Your task to perform on an android device: Open notification settings Image 0: 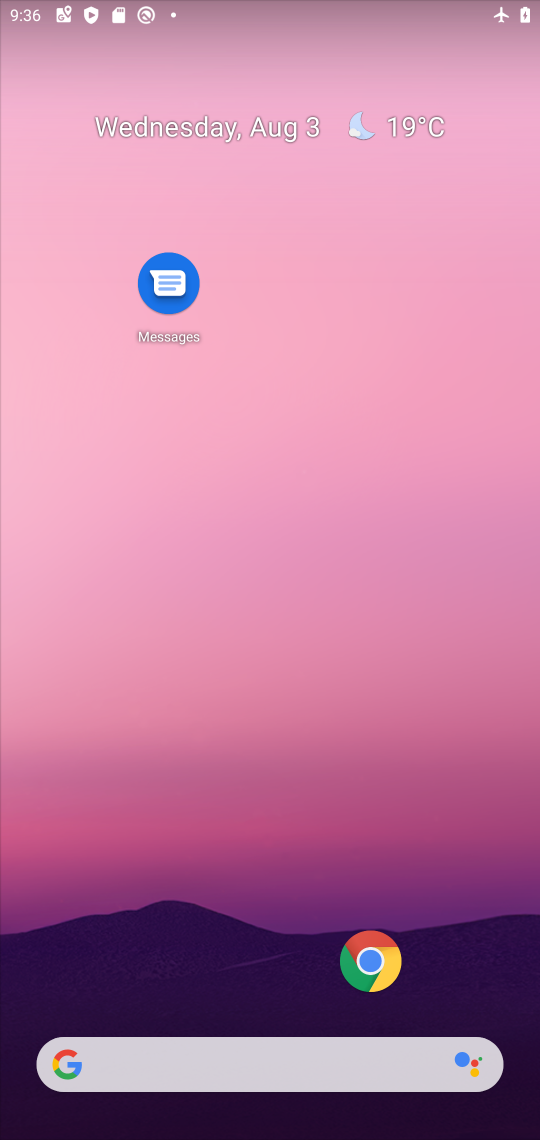
Step 0: drag from (245, 1024) to (105, 44)
Your task to perform on an android device: Open notification settings Image 1: 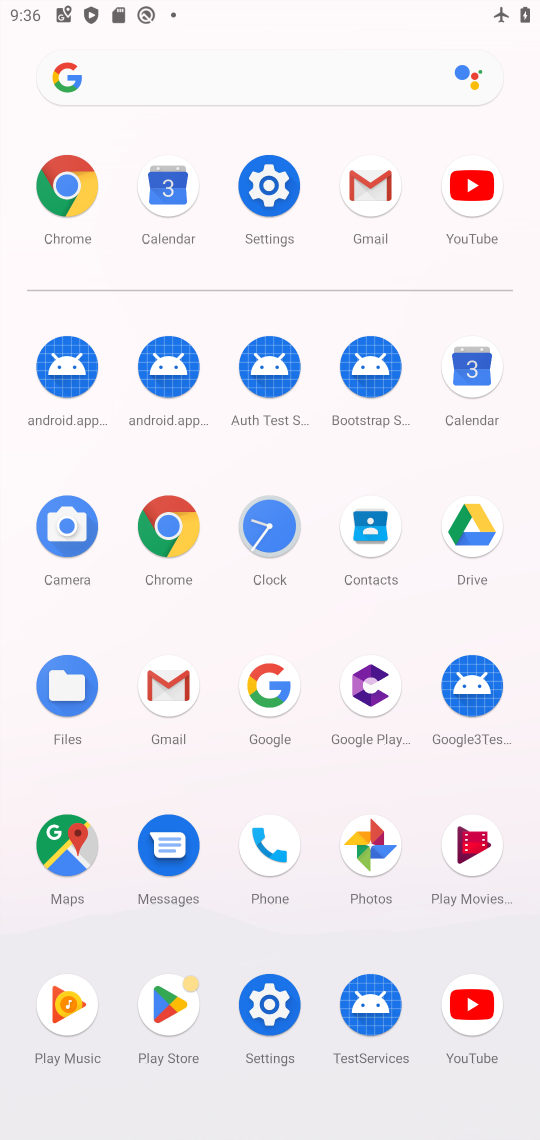
Step 1: click (259, 1001)
Your task to perform on an android device: Open notification settings Image 2: 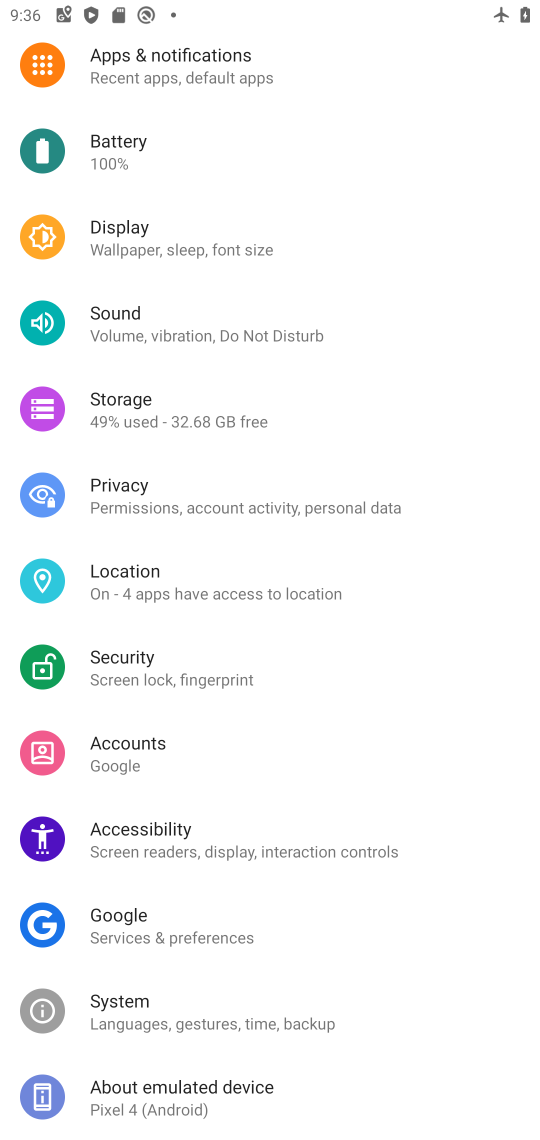
Step 2: click (169, 69)
Your task to perform on an android device: Open notification settings Image 3: 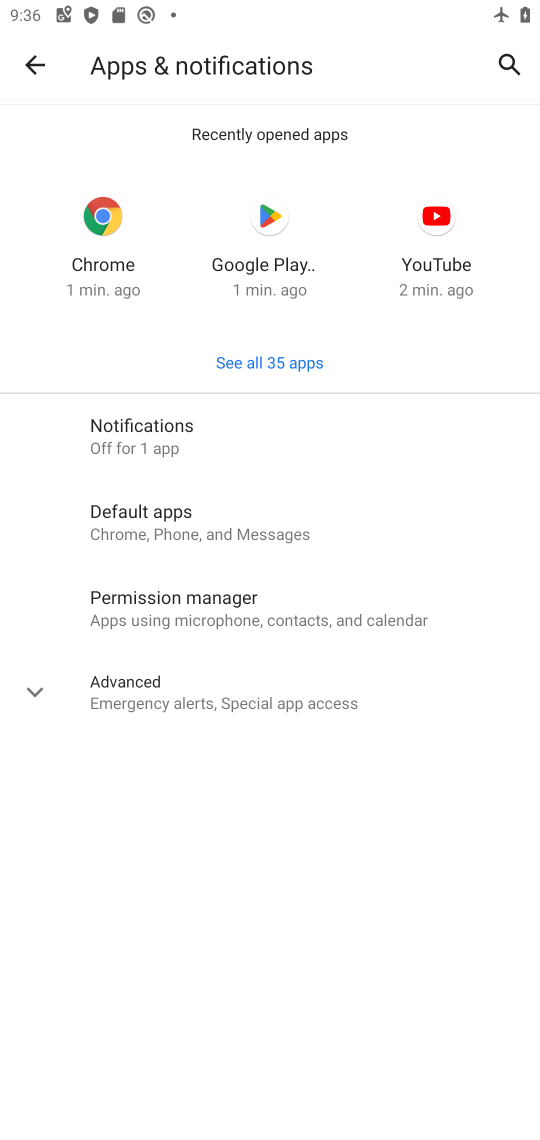
Step 3: click (187, 486)
Your task to perform on an android device: Open notification settings Image 4: 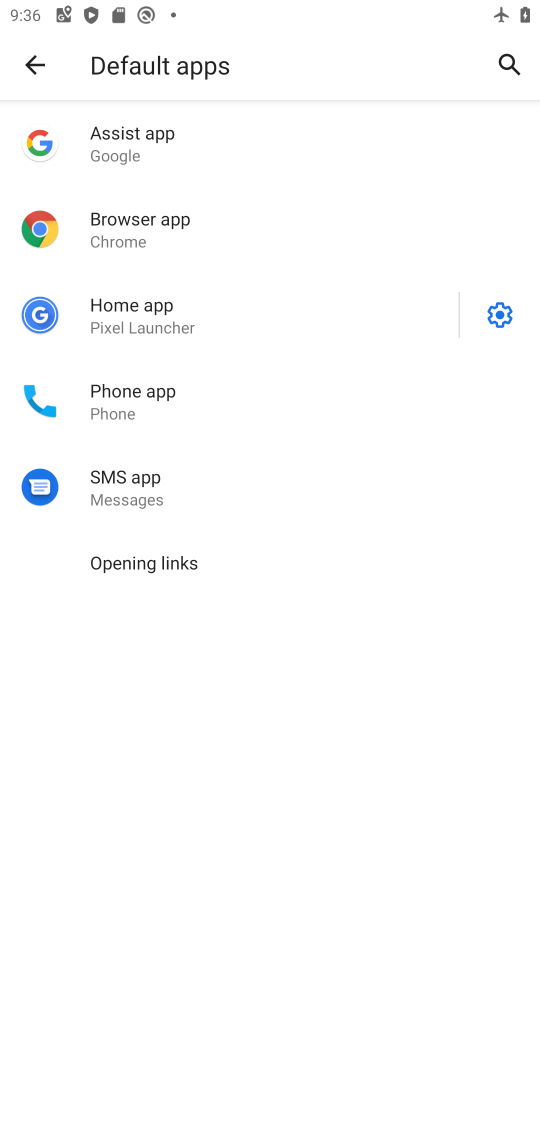
Step 4: task complete